Your task to perform on an android device: Open Android settings Image 0: 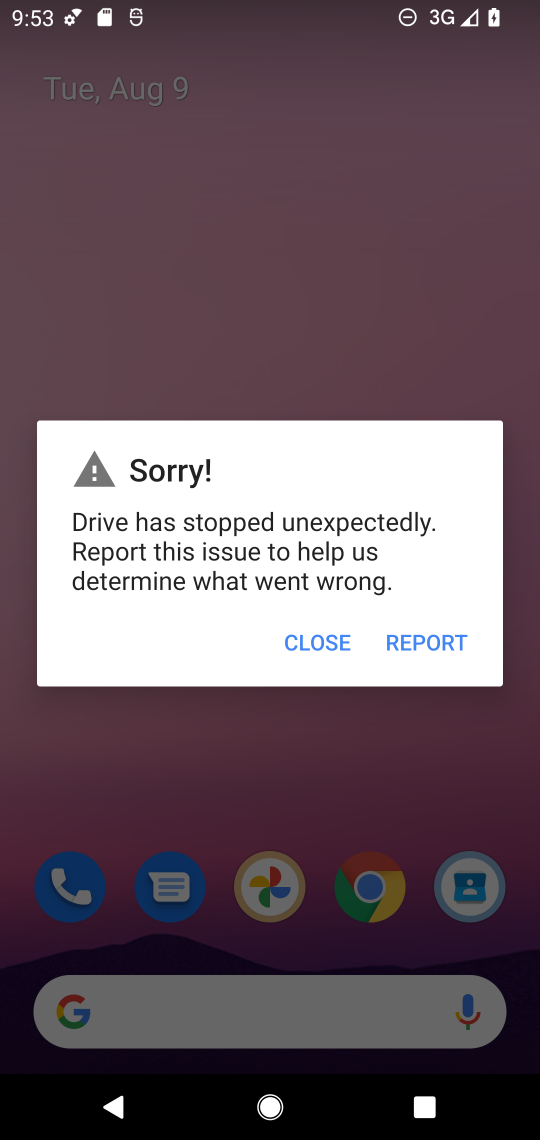
Step 0: click (311, 645)
Your task to perform on an android device: Open Android settings Image 1: 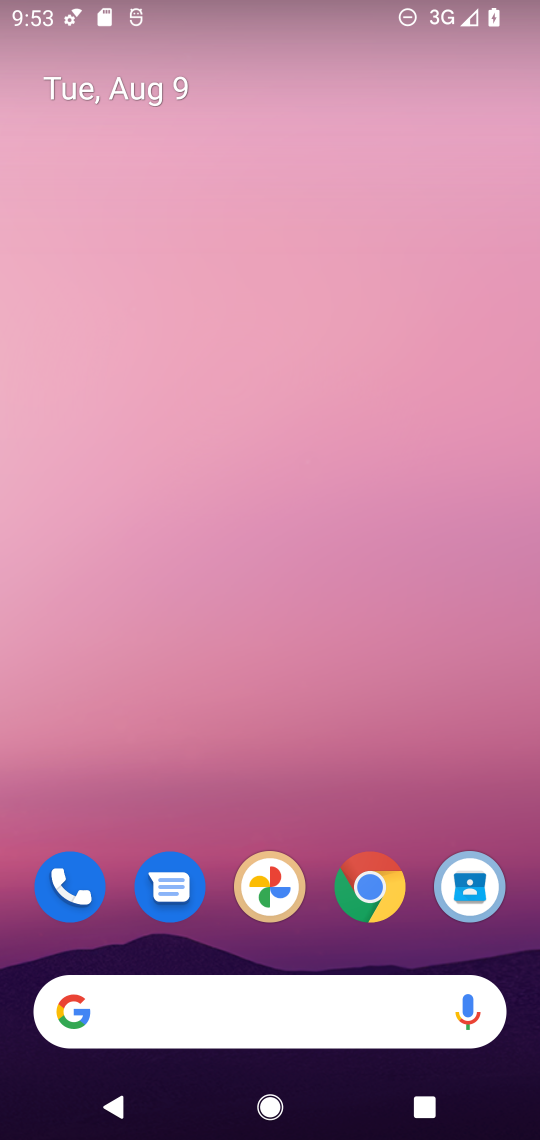
Step 1: drag from (286, 800) to (278, 151)
Your task to perform on an android device: Open Android settings Image 2: 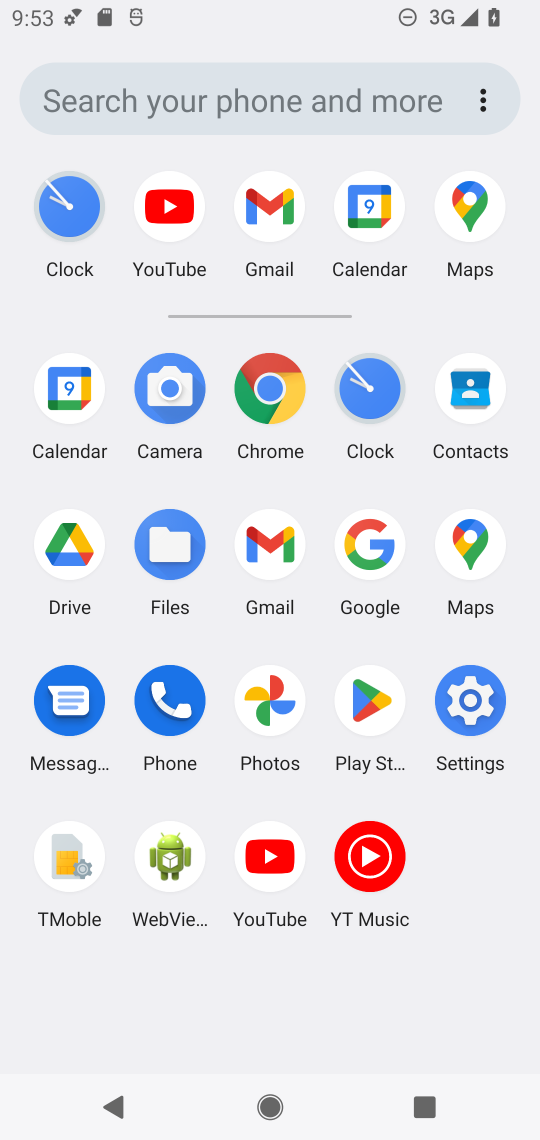
Step 2: click (461, 713)
Your task to perform on an android device: Open Android settings Image 3: 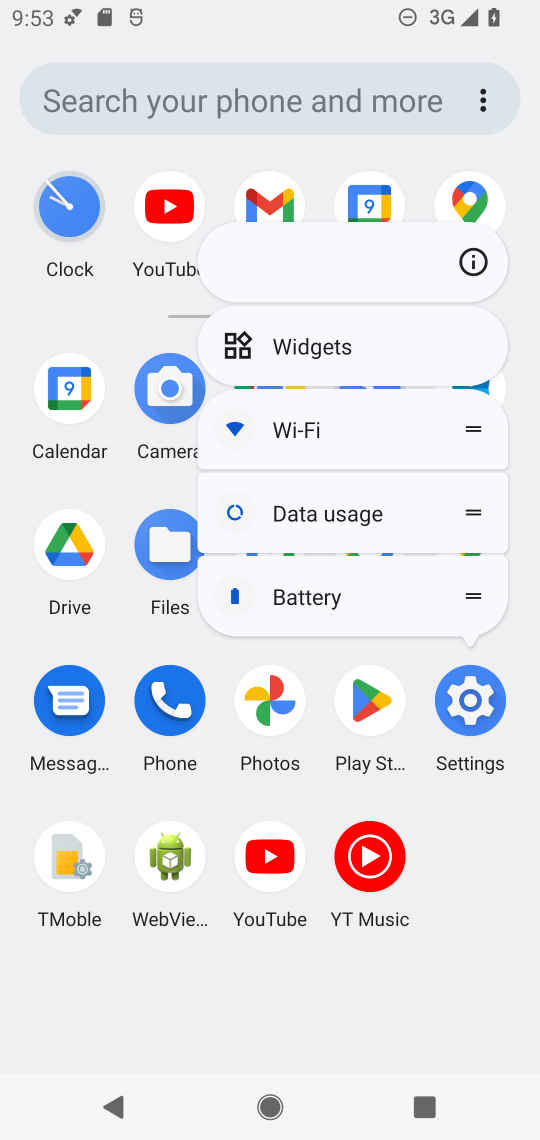
Step 3: click (483, 766)
Your task to perform on an android device: Open Android settings Image 4: 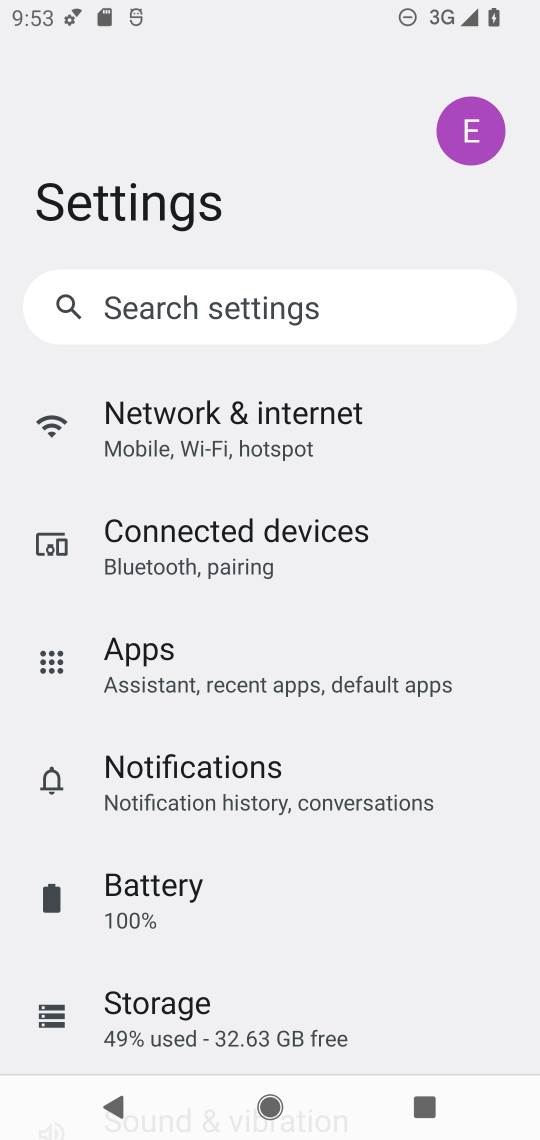
Step 4: task complete